Your task to perform on an android device: choose inbox layout in the gmail app Image 0: 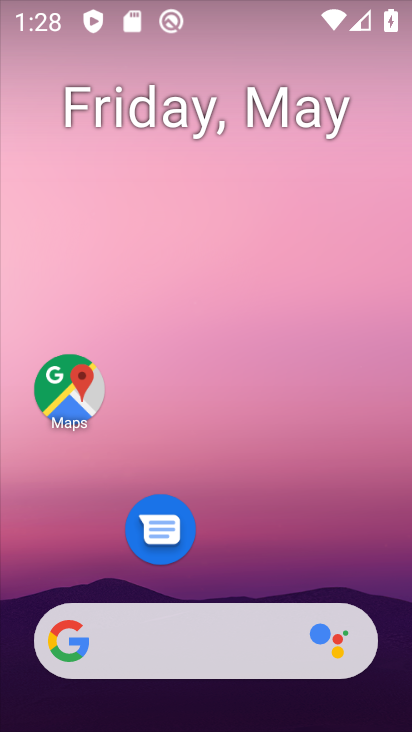
Step 0: drag from (216, 495) to (205, 99)
Your task to perform on an android device: choose inbox layout in the gmail app Image 1: 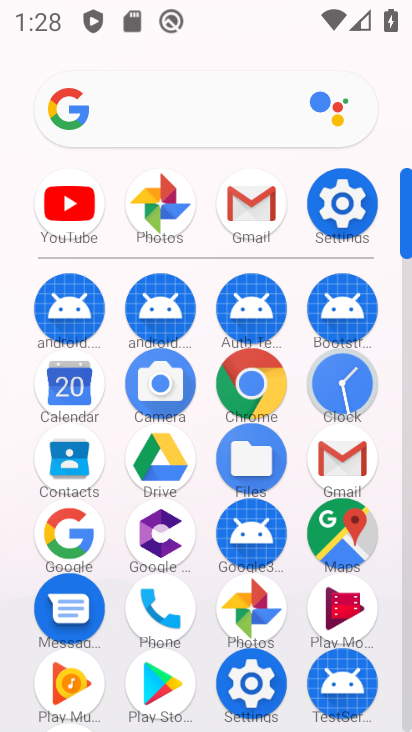
Step 1: click (332, 434)
Your task to perform on an android device: choose inbox layout in the gmail app Image 2: 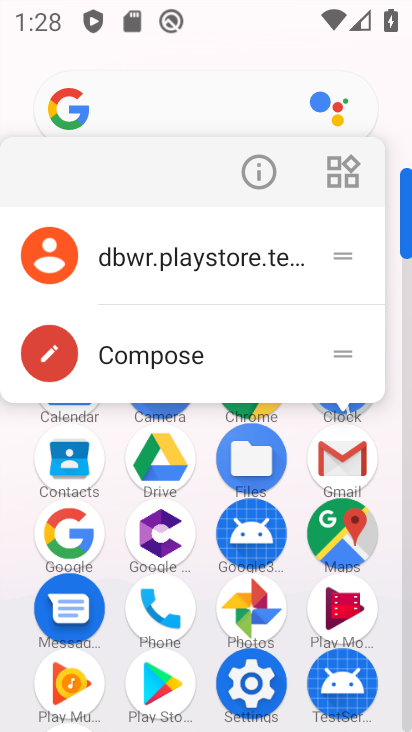
Step 2: click (131, 263)
Your task to perform on an android device: choose inbox layout in the gmail app Image 3: 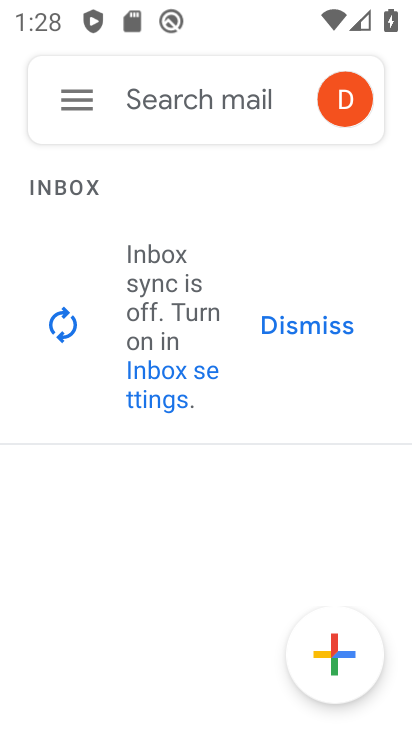
Step 3: click (64, 103)
Your task to perform on an android device: choose inbox layout in the gmail app Image 4: 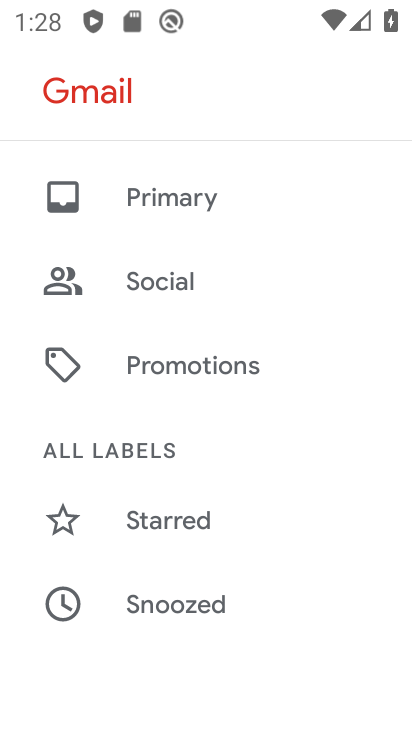
Step 4: click (139, 197)
Your task to perform on an android device: choose inbox layout in the gmail app Image 5: 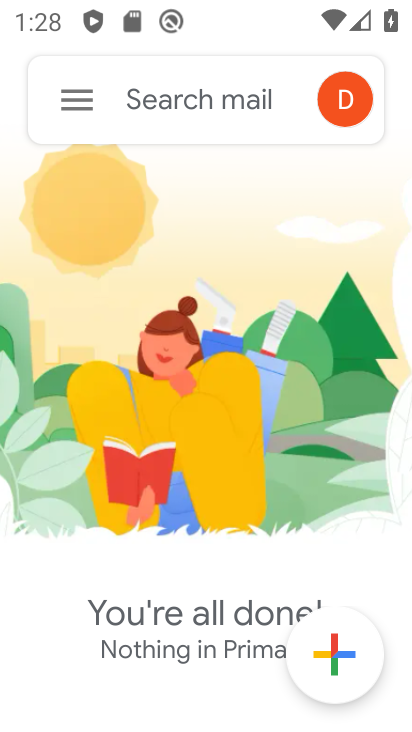
Step 5: task complete